Your task to perform on an android device: move a message to another label in the gmail app Image 0: 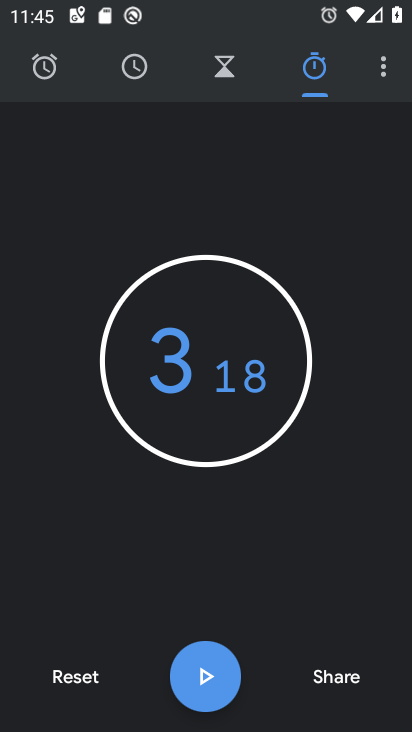
Step 0: press home button
Your task to perform on an android device: move a message to another label in the gmail app Image 1: 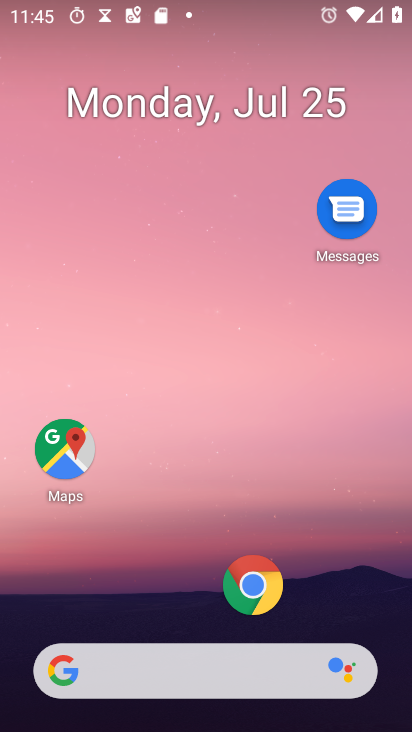
Step 1: drag from (184, 654) to (299, 89)
Your task to perform on an android device: move a message to another label in the gmail app Image 2: 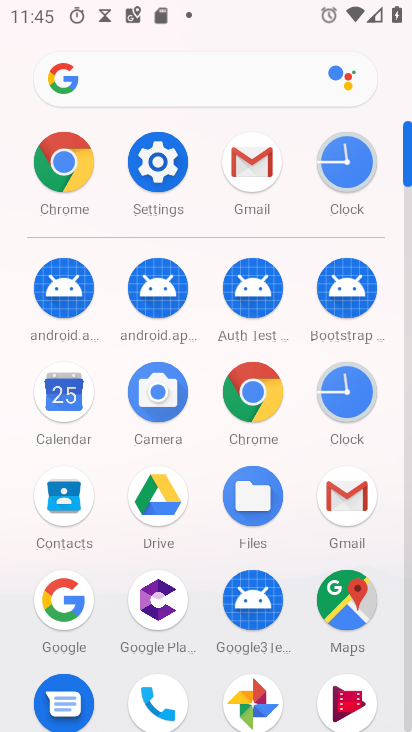
Step 2: click (251, 178)
Your task to perform on an android device: move a message to another label in the gmail app Image 3: 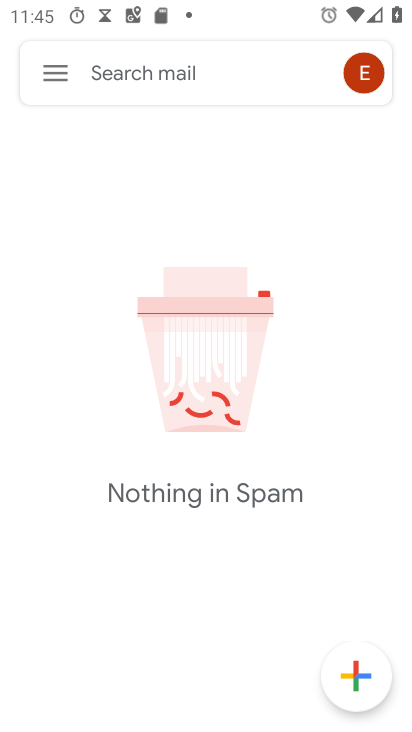
Step 3: click (52, 70)
Your task to perform on an android device: move a message to another label in the gmail app Image 4: 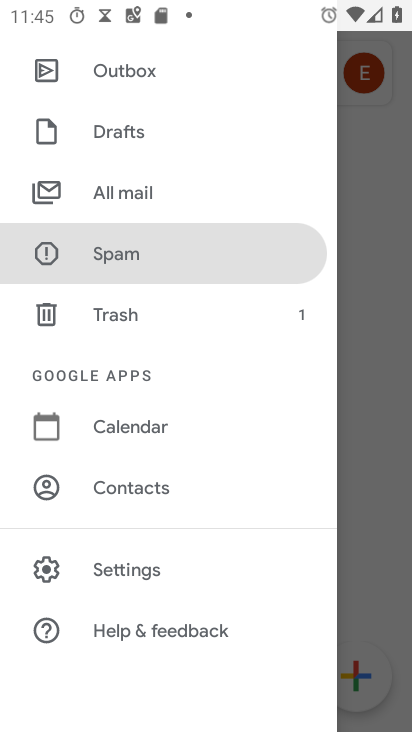
Step 4: drag from (224, 169) to (200, 451)
Your task to perform on an android device: move a message to another label in the gmail app Image 5: 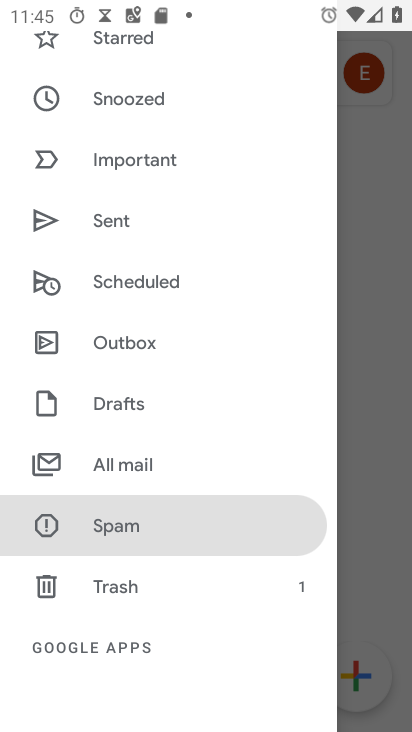
Step 5: click (131, 457)
Your task to perform on an android device: move a message to another label in the gmail app Image 6: 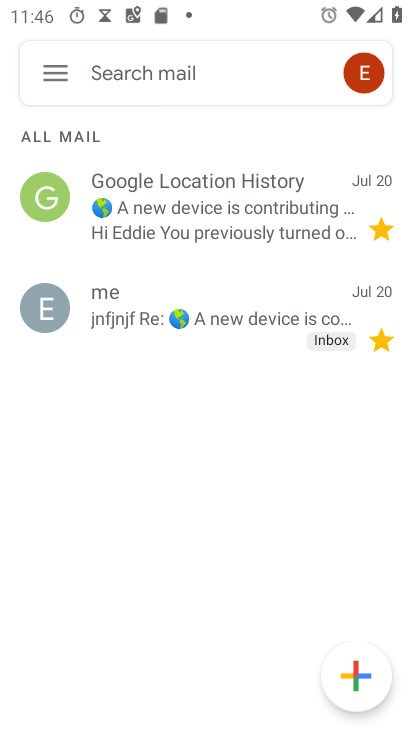
Step 6: click (183, 213)
Your task to perform on an android device: move a message to another label in the gmail app Image 7: 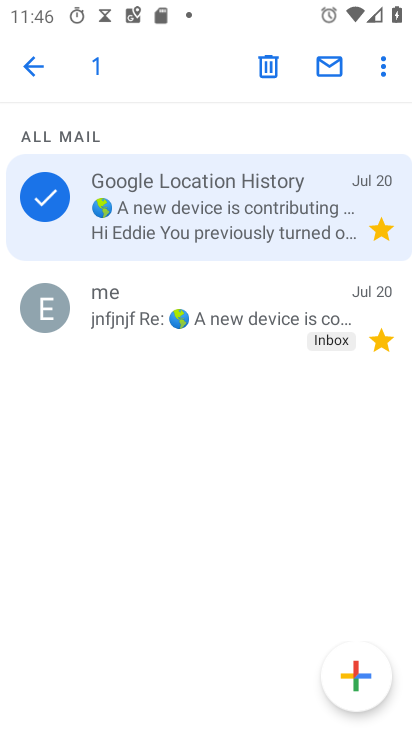
Step 7: click (168, 231)
Your task to perform on an android device: move a message to another label in the gmail app Image 8: 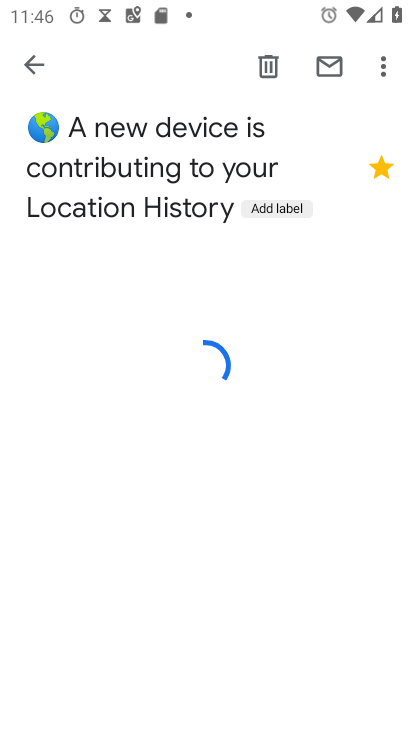
Step 8: click (268, 209)
Your task to perform on an android device: move a message to another label in the gmail app Image 9: 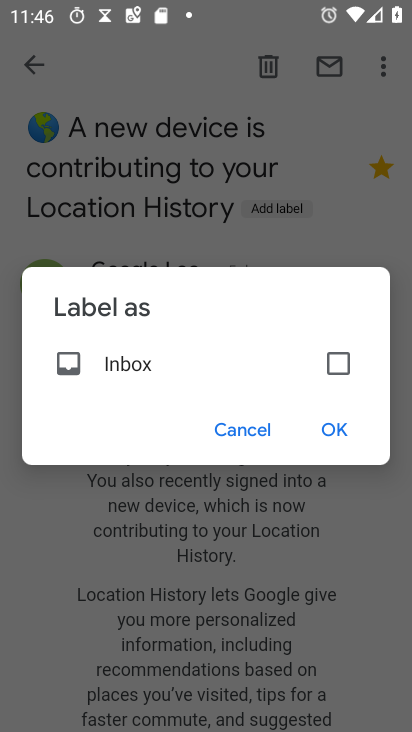
Step 9: click (339, 362)
Your task to perform on an android device: move a message to another label in the gmail app Image 10: 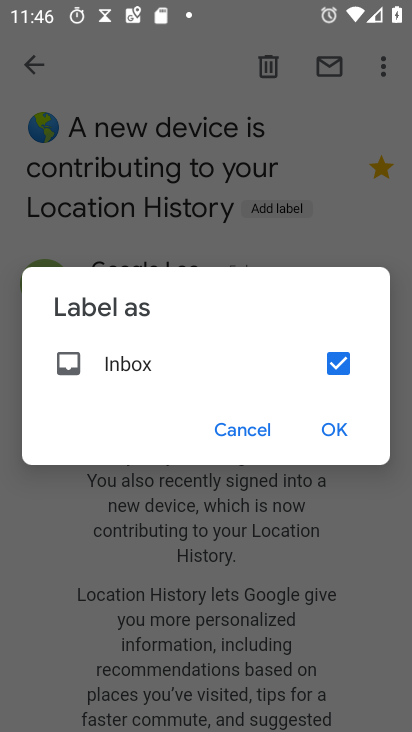
Step 10: click (343, 433)
Your task to perform on an android device: move a message to another label in the gmail app Image 11: 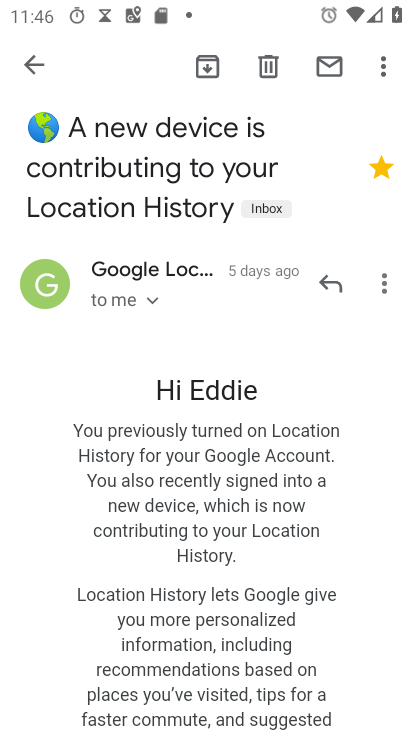
Step 11: task complete